Your task to perform on an android device: check the backup settings in the google photos Image 0: 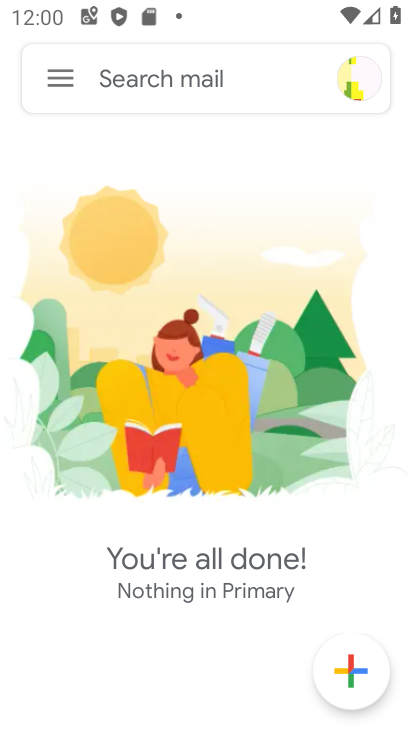
Step 0: press home button
Your task to perform on an android device: check the backup settings in the google photos Image 1: 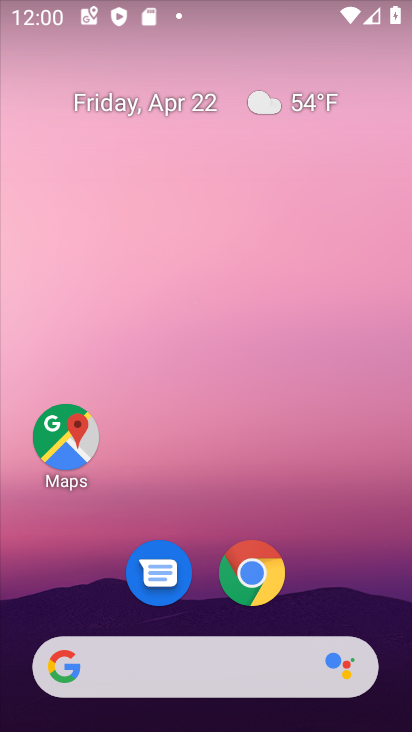
Step 1: drag from (361, 571) to (343, 224)
Your task to perform on an android device: check the backup settings in the google photos Image 2: 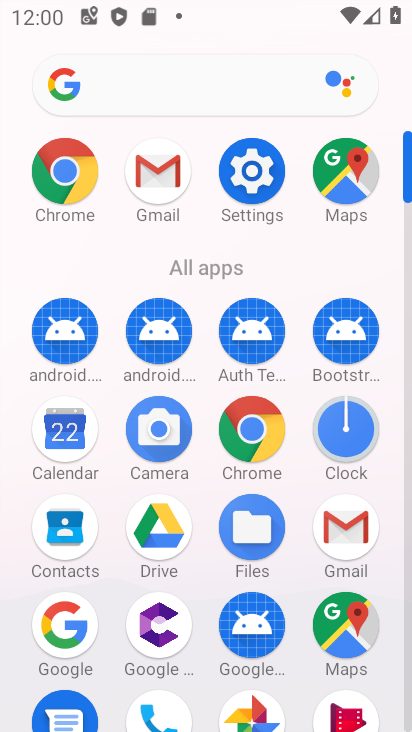
Step 2: click (236, 181)
Your task to perform on an android device: check the backup settings in the google photos Image 3: 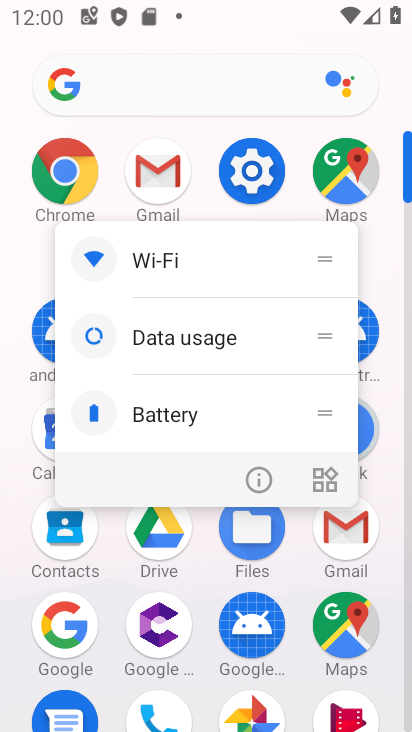
Step 3: click (397, 420)
Your task to perform on an android device: check the backup settings in the google photos Image 4: 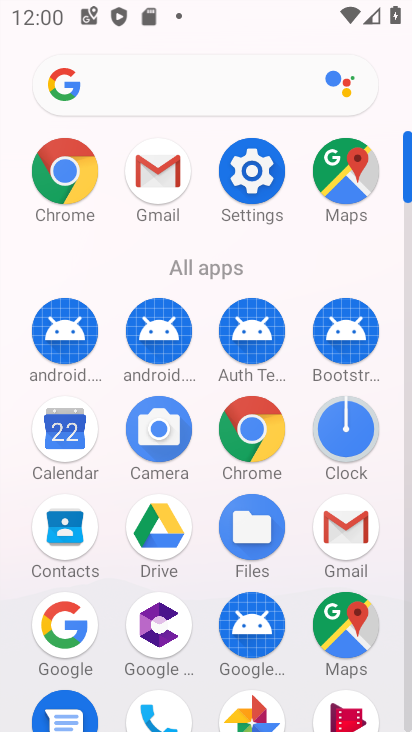
Step 4: drag from (219, 613) to (258, 332)
Your task to perform on an android device: check the backup settings in the google photos Image 5: 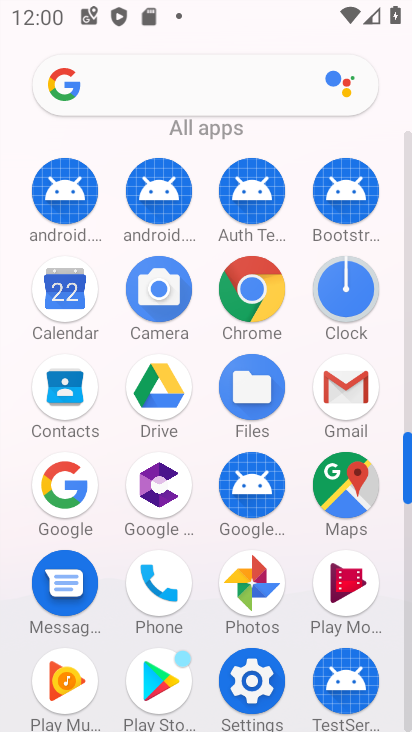
Step 5: click (250, 599)
Your task to perform on an android device: check the backup settings in the google photos Image 6: 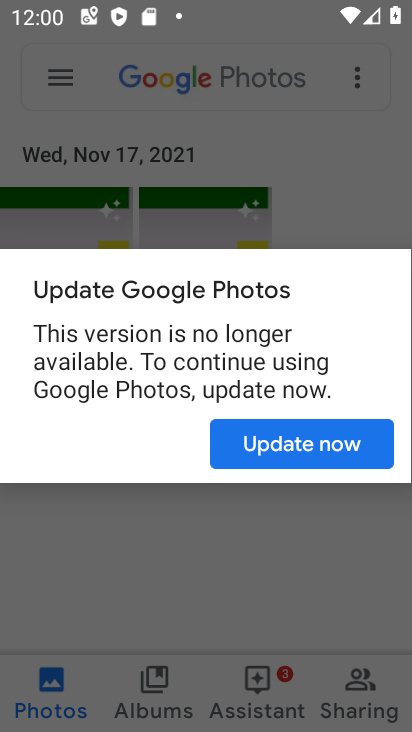
Step 6: click (332, 440)
Your task to perform on an android device: check the backup settings in the google photos Image 7: 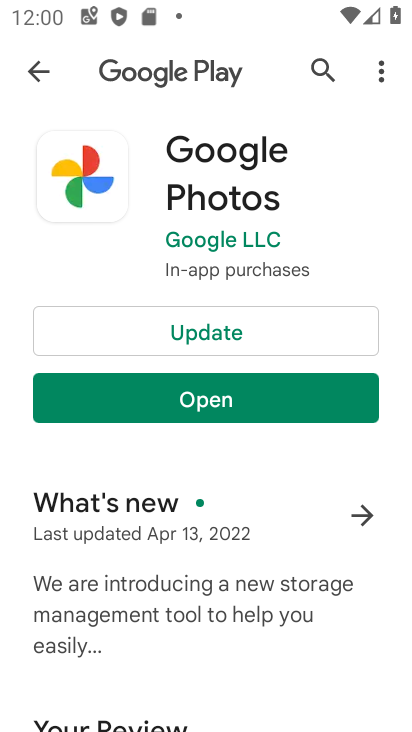
Step 7: click (221, 337)
Your task to perform on an android device: check the backup settings in the google photos Image 8: 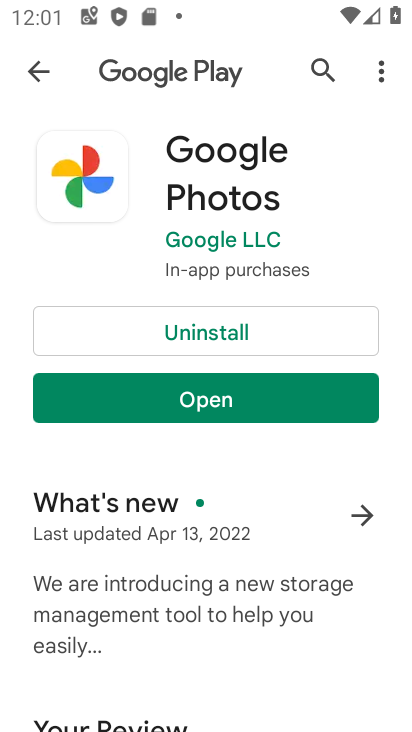
Step 8: click (183, 401)
Your task to perform on an android device: check the backup settings in the google photos Image 9: 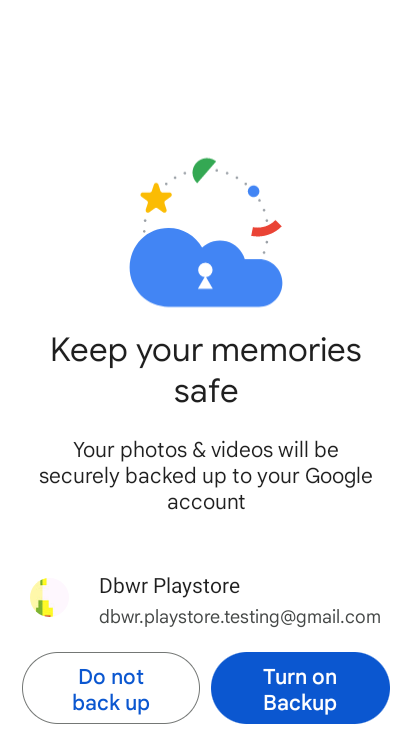
Step 9: click (280, 695)
Your task to perform on an android device: check the backup settings in the google photos Image 10: 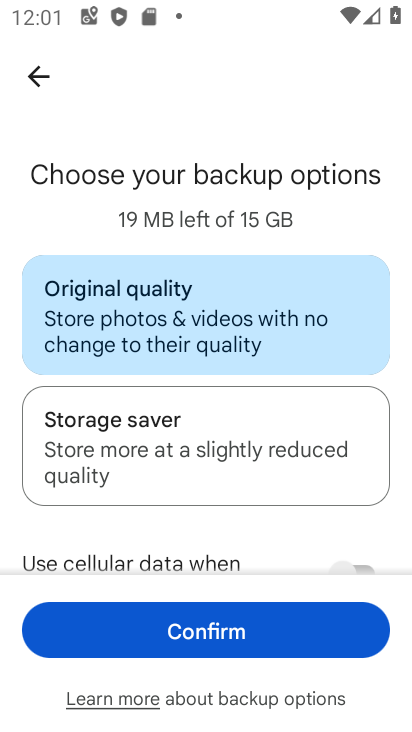
Step 10: click (281, 623)
Your task to perform on an android device: check the backup settings in the google photos Image 11: 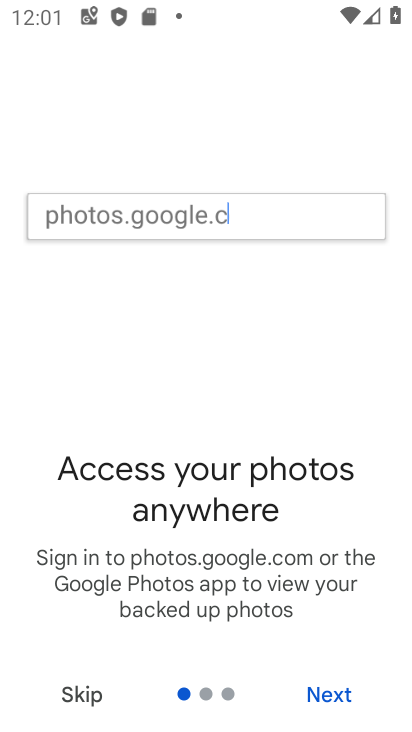
Step 11: click (325, 690)
Your task to perform on an android device: check the backup settings in the google photos Image 12: 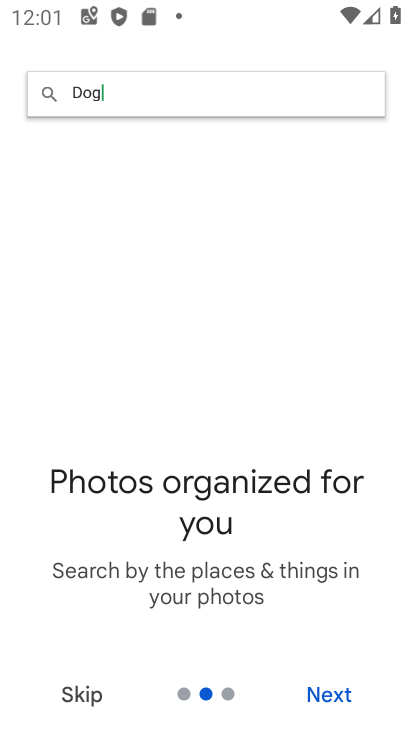
Step 12: click (325, 690)
Your task to perform on an android device: check the backup settings in the google photos Image 13: 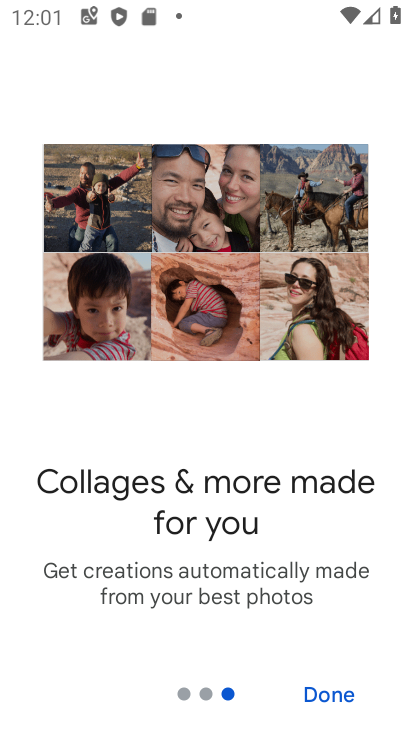
Step 13: click (325, 690)
Your task to perform on an android device: check the backup settings in the google photos Image 14: 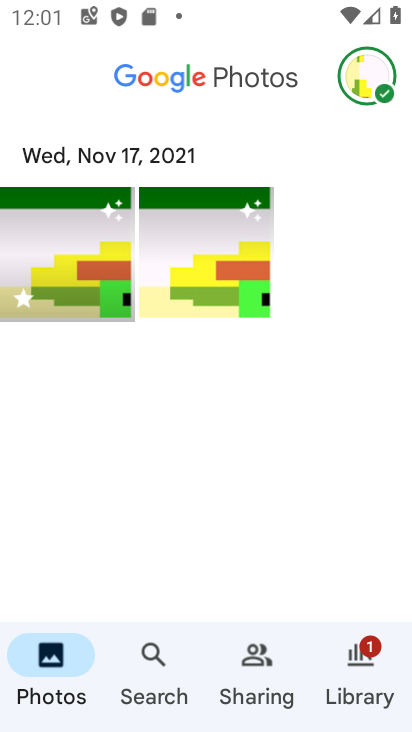
Step 14: click (354, 74)
Your task to perform on an android device: check the backup settings in the google photos Image 15: 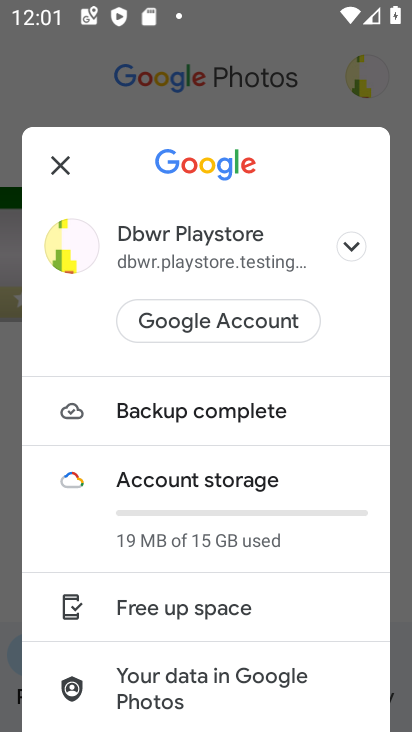
Step 15: drag from (257, 601) to (272, 280)
Your task to perform on an android device: check the backup settings in the google photos Image 16: 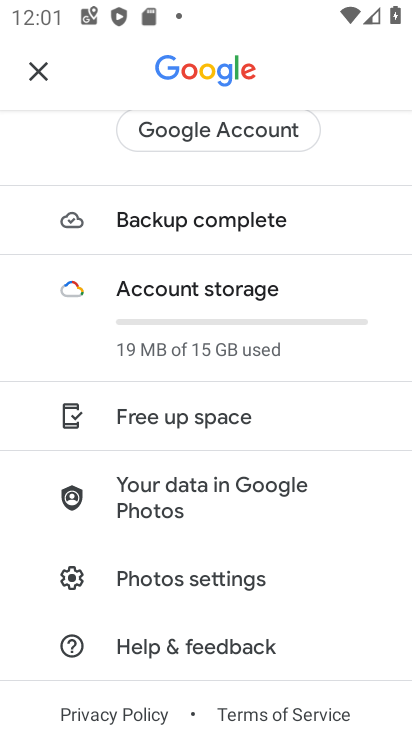
Step 16: click (213, 575)
Your task to perform on an android device: check the backup settings in the google photos Image 17: 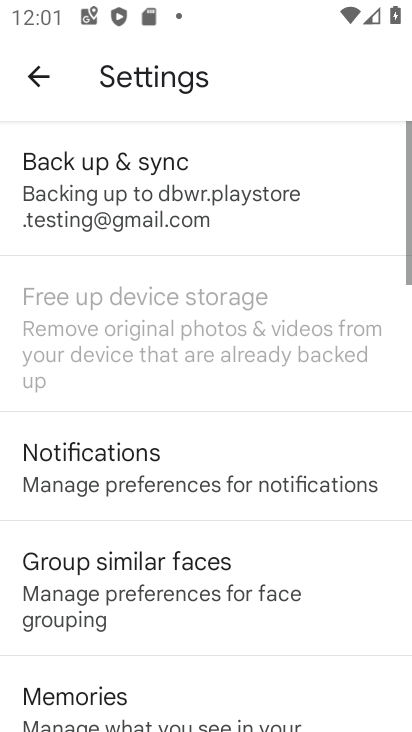
Step 17: click (140, 175)
Your task to perform on an android device: check the backup settings in the google photos Image 18: 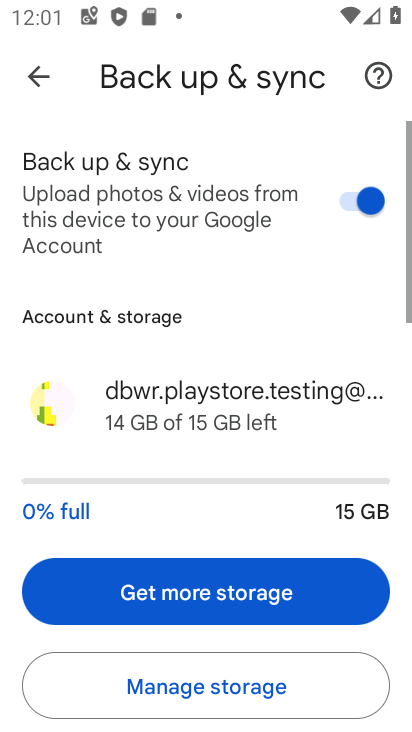
Step 18: task complete